Your task to perform on an android device: Search for vegetarian restaurants on Maps Image 0: 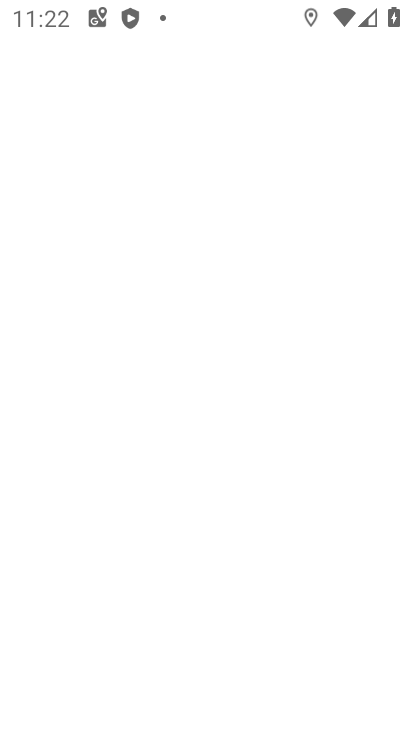
Step 0: click (366, 521)
Your task to perform on an android device: Search for vegetarian restaurants on Maps Image 1: 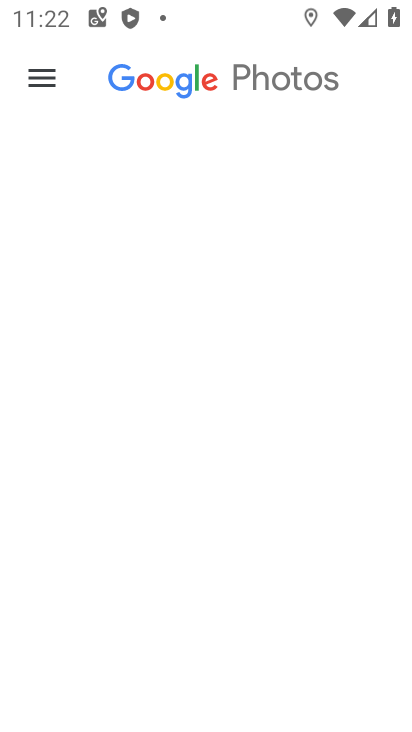
Step 1: press home button
Your task to perform on an android device: Search for vegetarian restaurants on Maps Image 2: 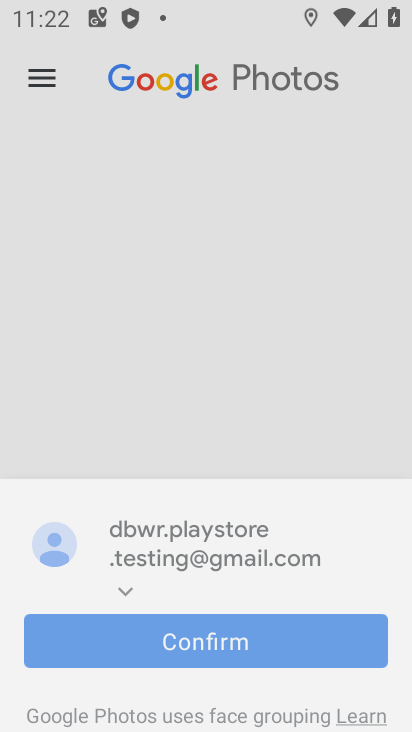
Step 2: click (388, 500)
Your task to perform on an android device: Search for vegetarian restaurants on Maps Image 3: 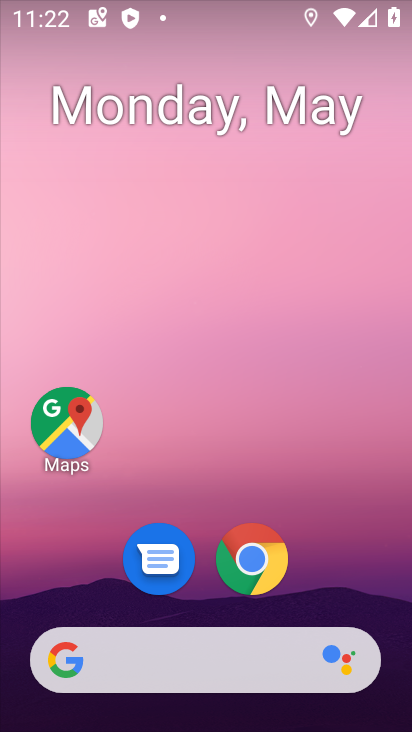
Step 3: drag from (364, 558) to (353, 100)
Your task to perform on an android device: Search for vegetarian restaurants on Maps Image 4: 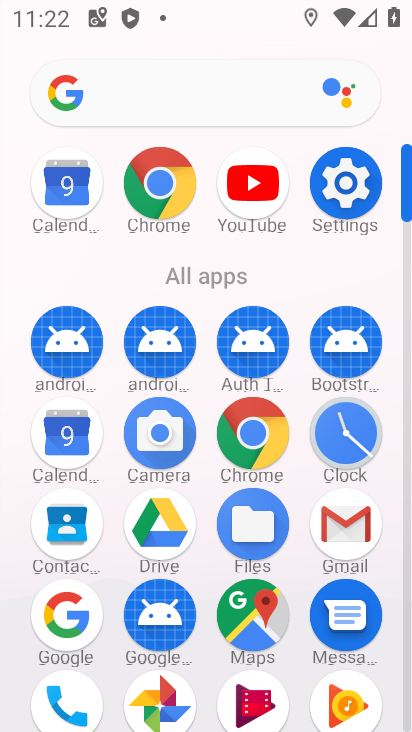
Step 4: click (259, 613)
Your task to perform on an android device: Search for vegetarian restaurants on Maps Image 5: 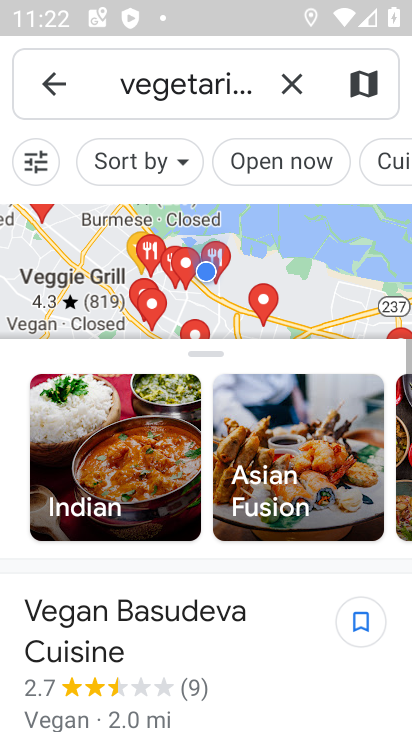
Step 5: task complete